Your task to perform on an android device: Show me productivity apps on the Play Store Image 0: 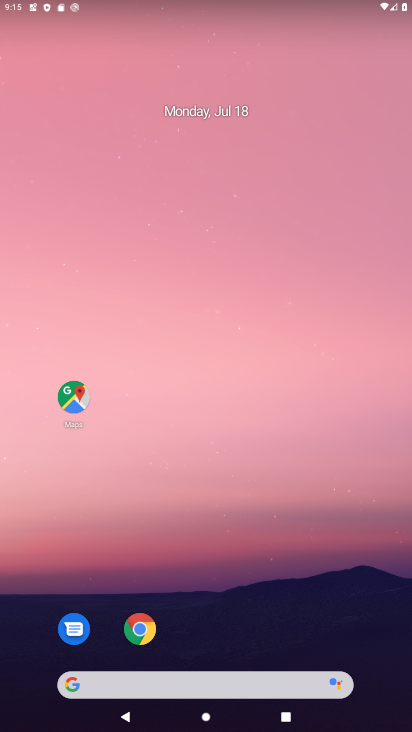
Step 0: drag from (268, 582) to (239, 52)
Your task to perform on an android device: Show me productivity apps on the Play Store Image 1: 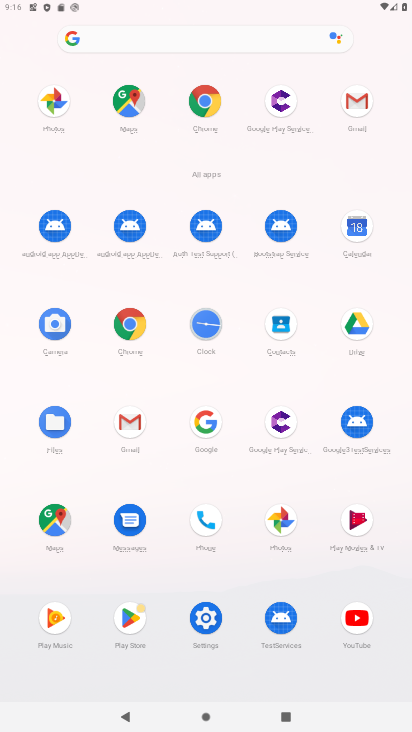
Step 1: click (131, 613)
Your task to perform on an android device: Show me productivity apps on the Play Store Image 2: 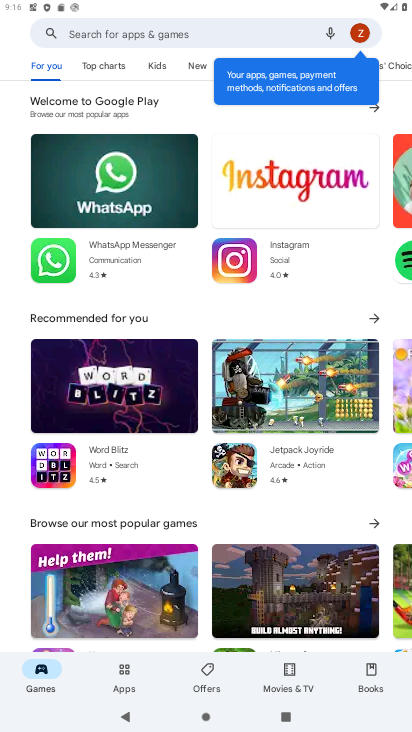
Step 2: click (109, 678)
Your task to perform on an android device: Show me productivity apps on the Play Store Image 3: 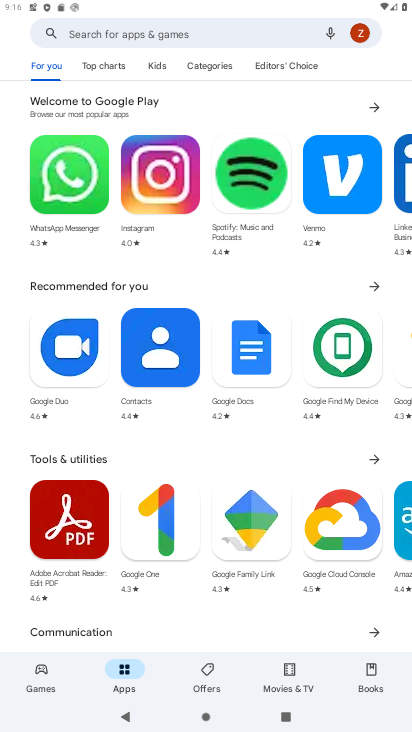
Step 3: task complete